Your task to perform on an android device: turn on notifications settings in the gmail app Image 0: 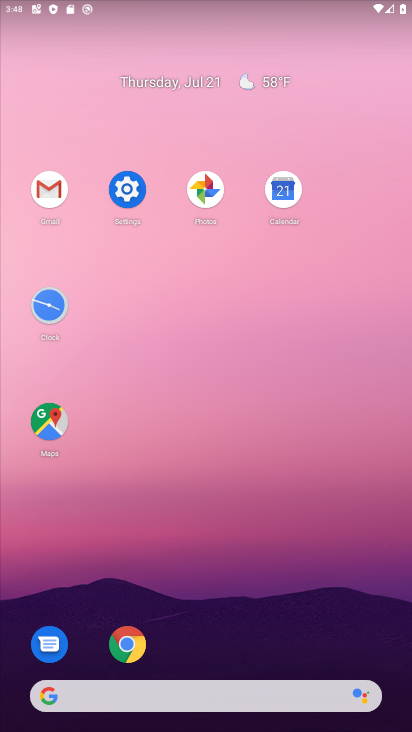
Step 0: click (56, 185)
Your task to perform on an android device: turn on notifications settings in the gmail app Image 1: 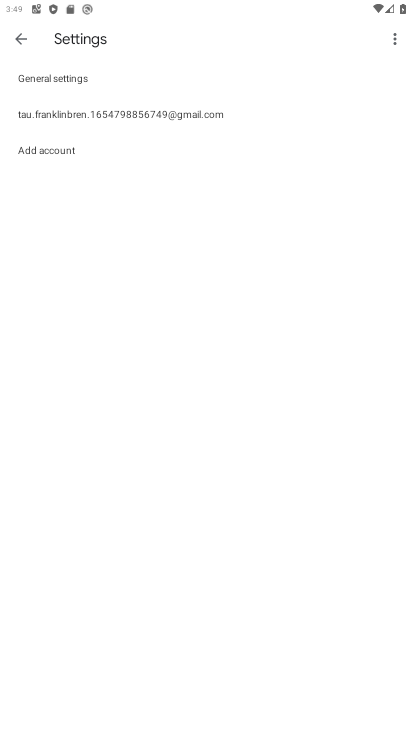
Step 1: click (24, 39)
Your task to perform on an android device: turn on notifications settings in the gmail app Image 2: 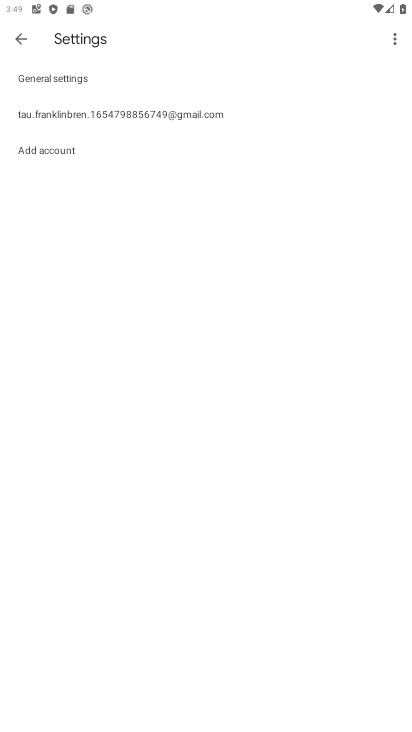
Step 2: click (24, 39)
Your task to perform on an android device: turn on notifications settings in the gmail app Image 3: 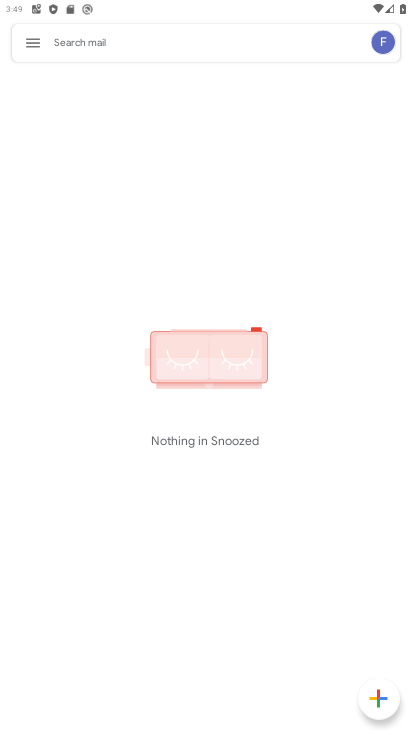
Step 3: click (43, 41)
Your task to perform on an android device: turn on notifications settings in the gmail app Image 4: 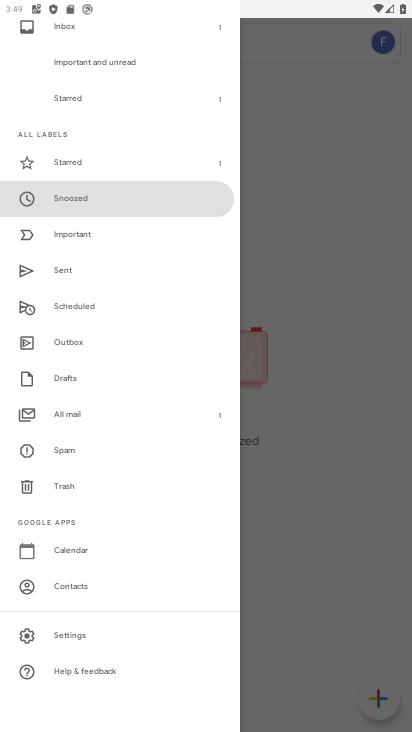
Step 4: click (97, 627)
Your task to perform on an android device: turn on notifications settings in the gmail app Image 5: 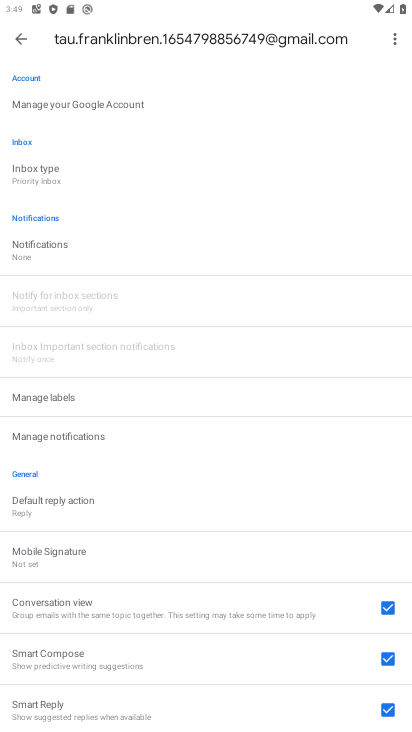
Step 5: click (60, 256)
Your task to perform on an android device: turn on notifications settings in the gmail app Image 6: 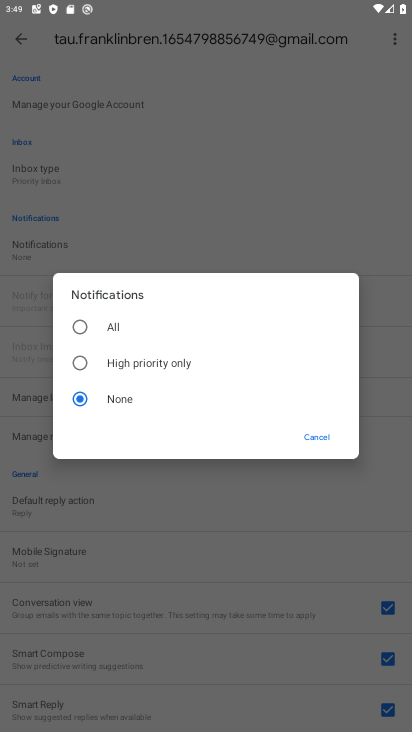
Step 6: click (86, 325)
Your task to perform on an android device: turn on notifications settings in the gmail app Image 7: 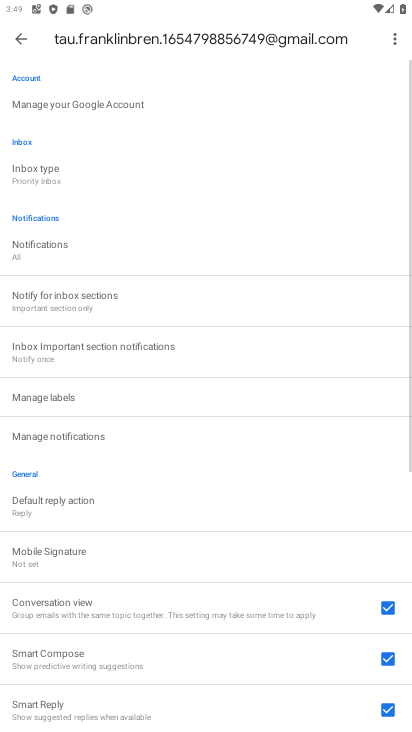
Step 7: task complete